Your task to perform on an android device: turn on data saver in the chrome app Image 0: 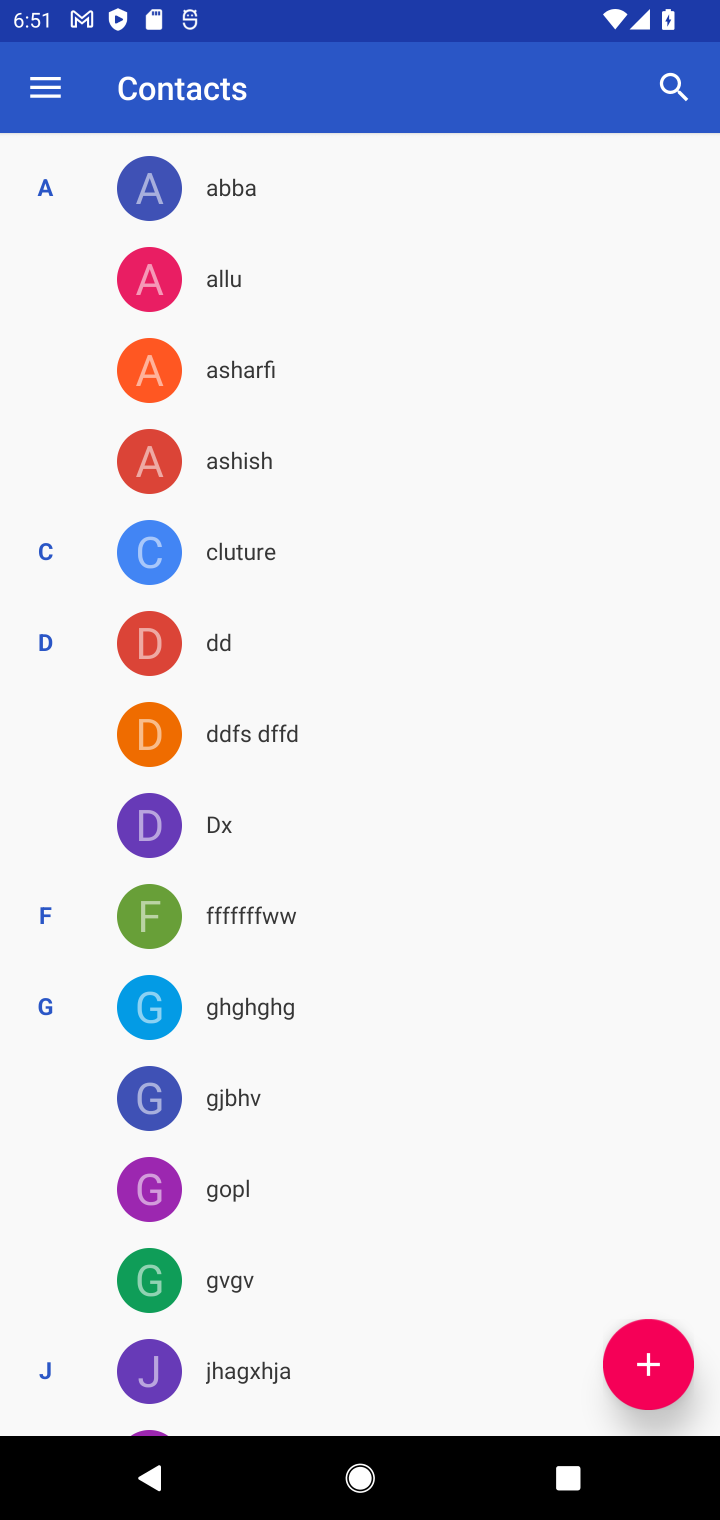
Step 0: press home button
Your task to perform on an android device: turn on data saver in the chrome app Image 1: 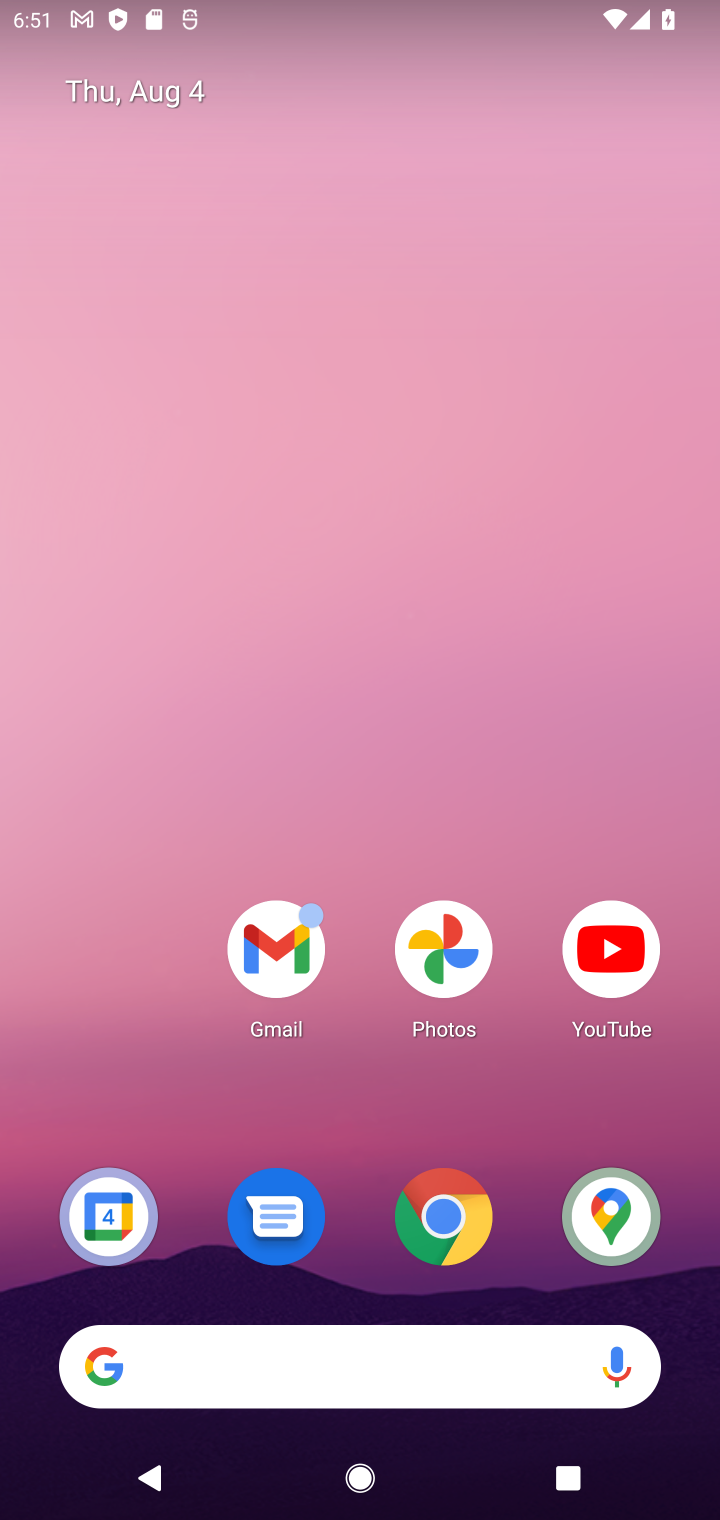
Step 1: drag from (339, 1309) to (374, 55)
Your task to perform on an android device: turn on data saver in the chrome app Image 2: 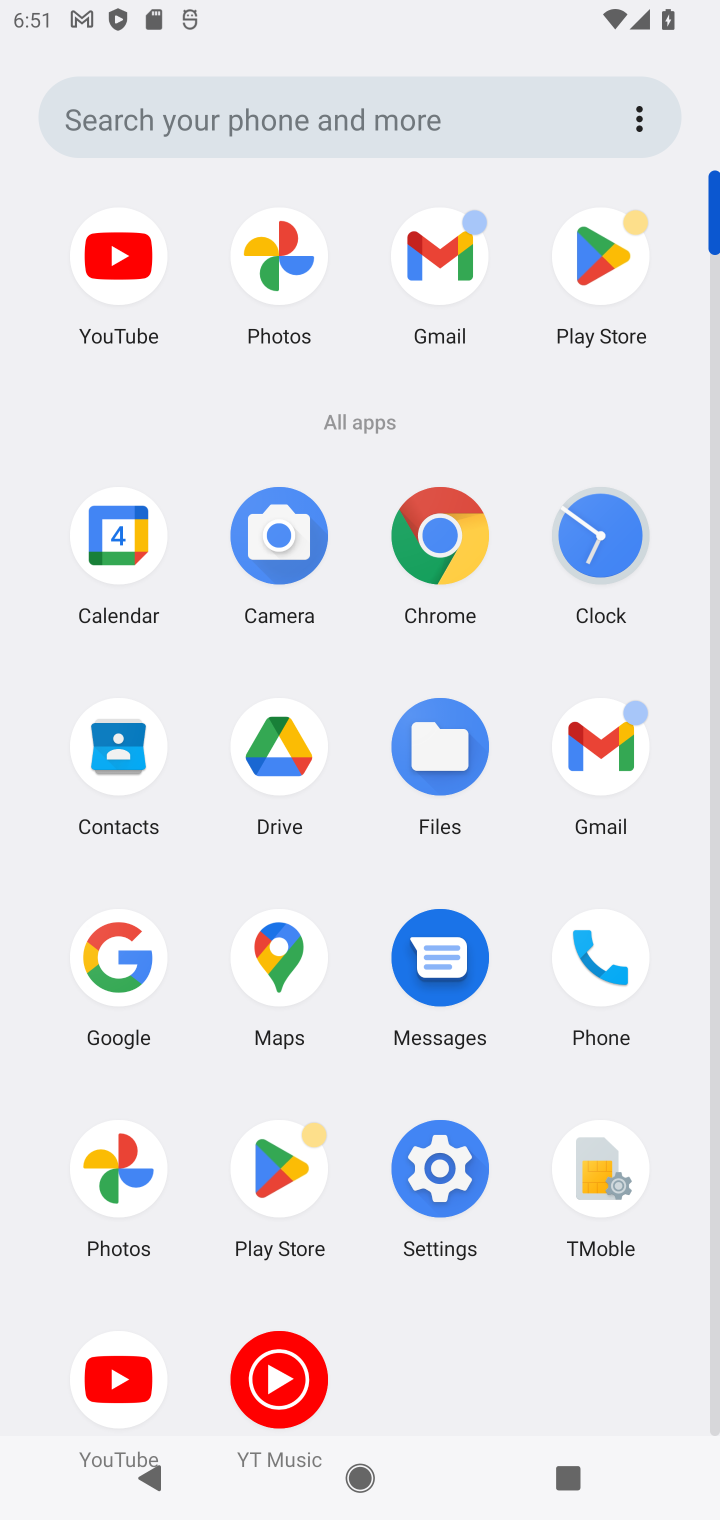
Step 2: click (440, 529)
Your task to perform on an android device: turn on data saver in the chrome app Image 3: 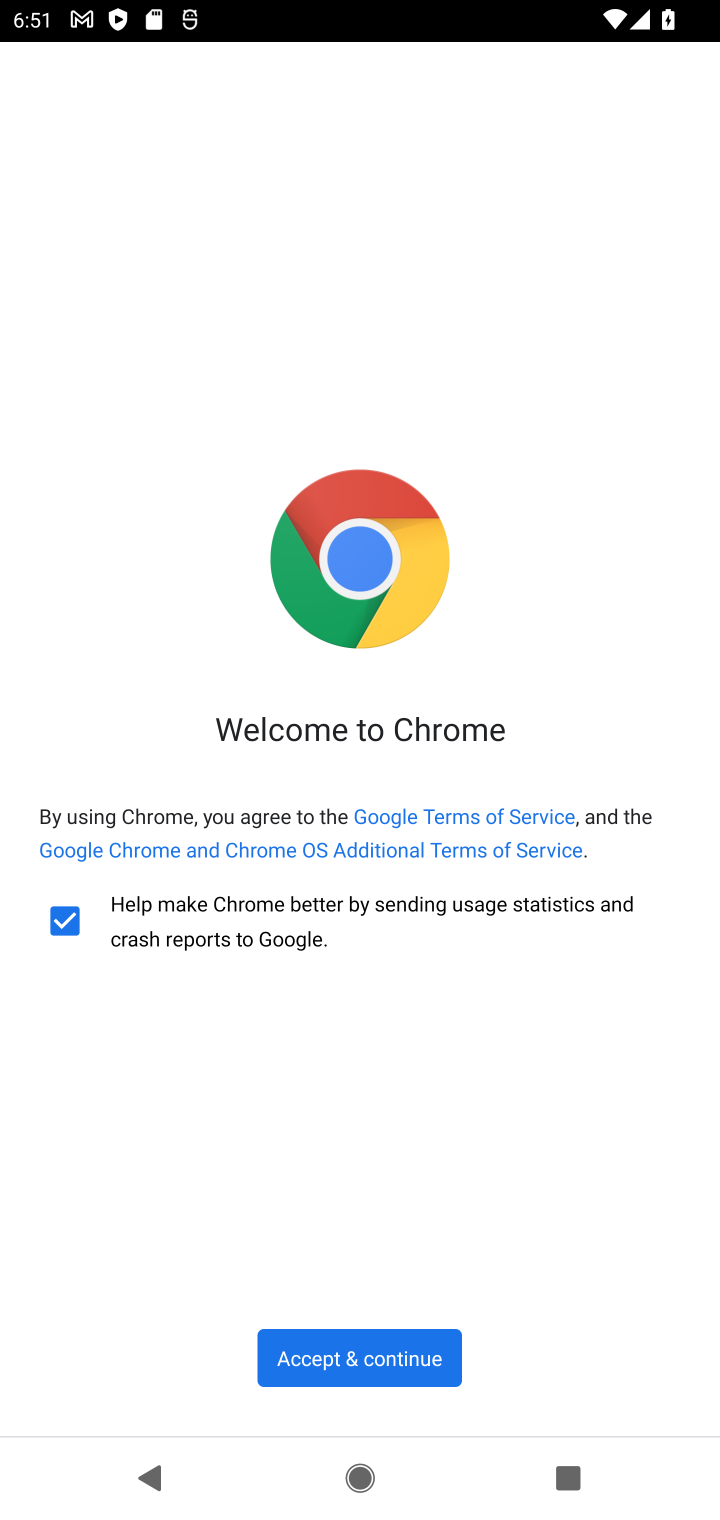
Step 3: click (355, 1363)
Your task to perform on an android device: turn on data saver in the chrome app Image 4: 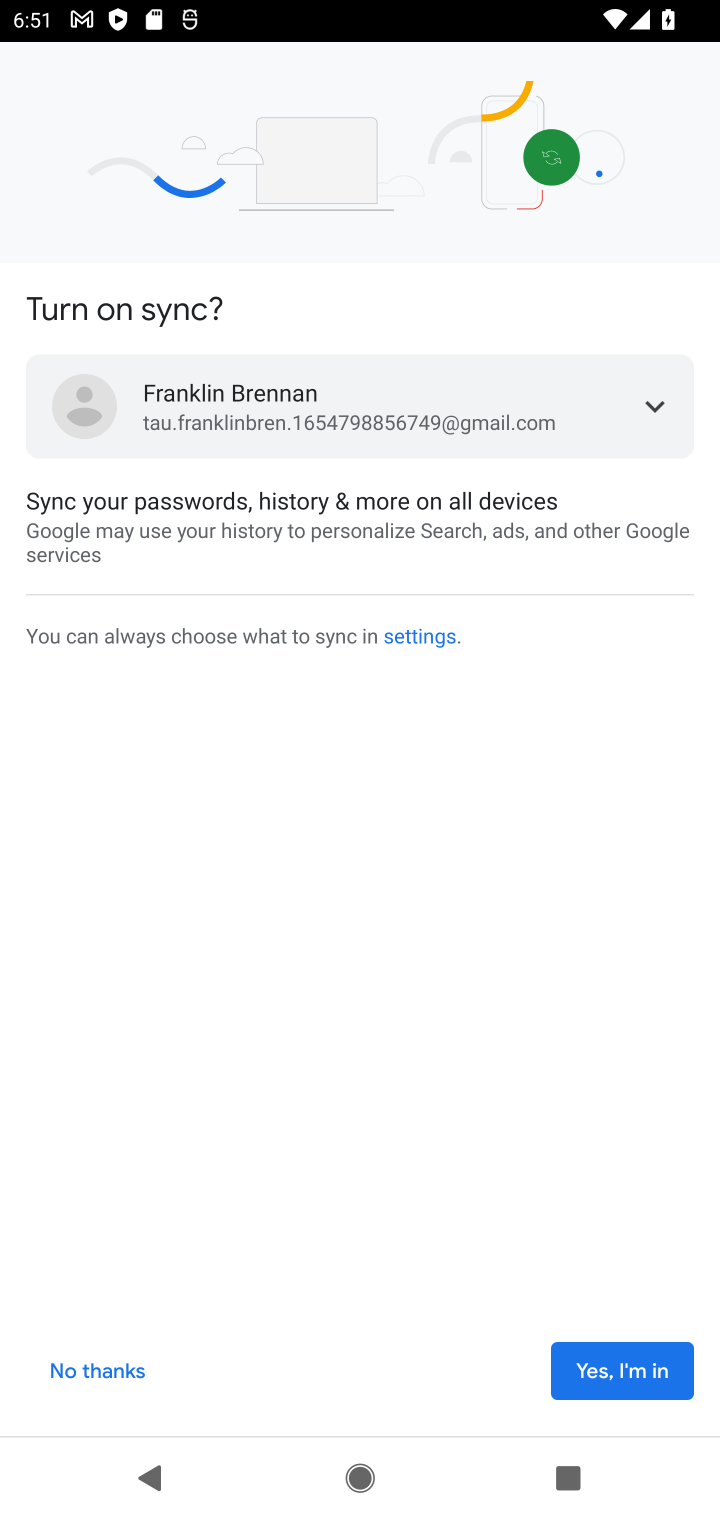
Step 4: click (644, 1381)
Your task to perform on an android device: turn on data saver in the chrome app Image 5: 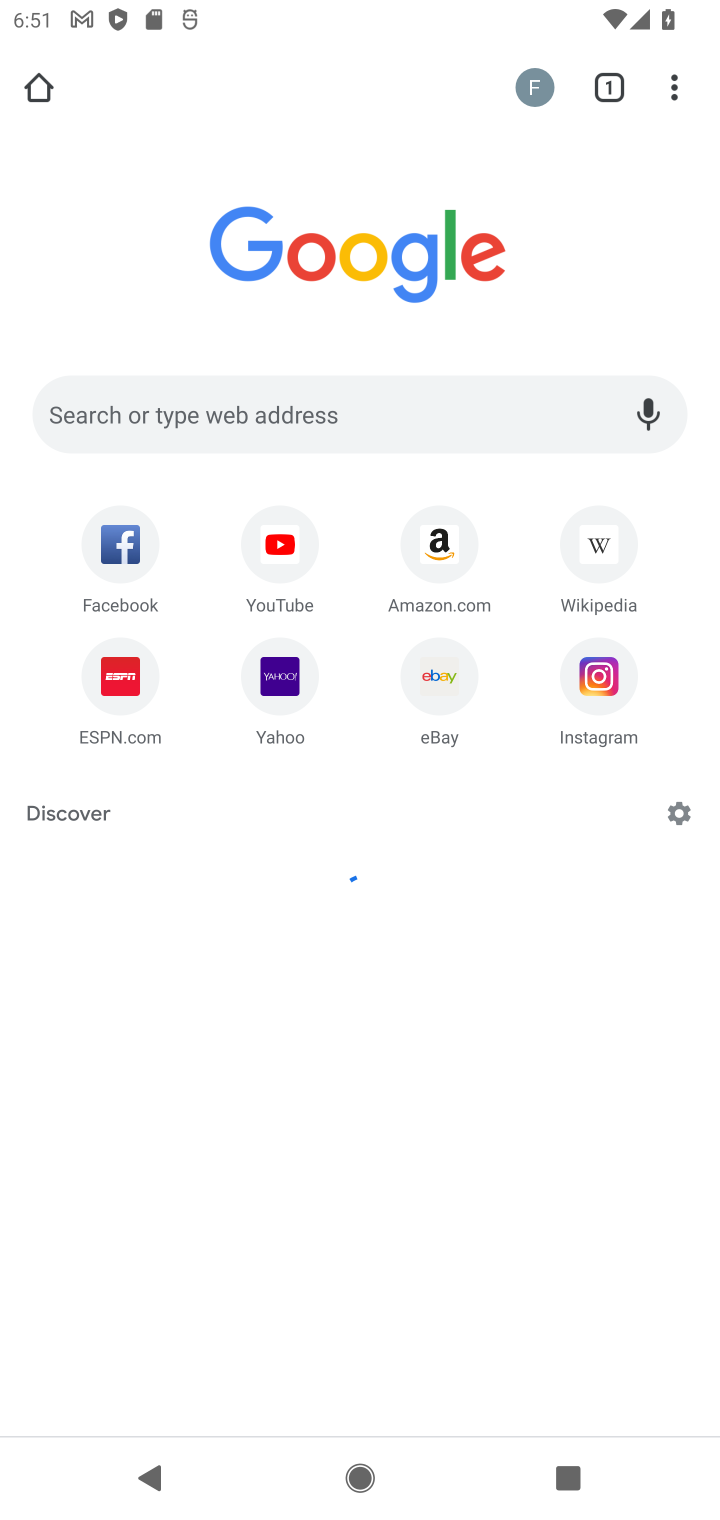
Step 5: click (672, 93)
Your task to perform on an android device: turn on data saver in the chrome app Image 6: 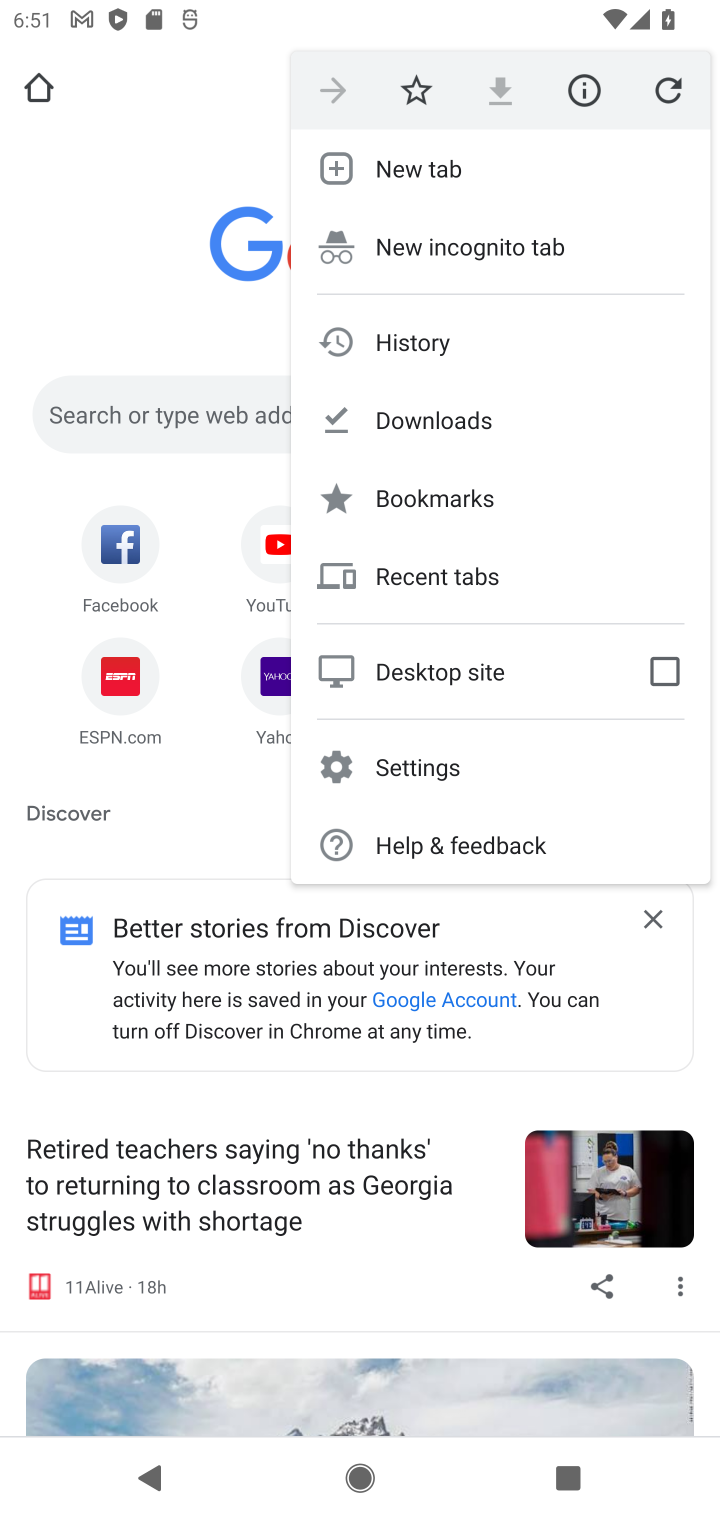
Step 6: click (402, 764)
Your task to perform on an android device: turn on data saver in the chrome app Image 7: 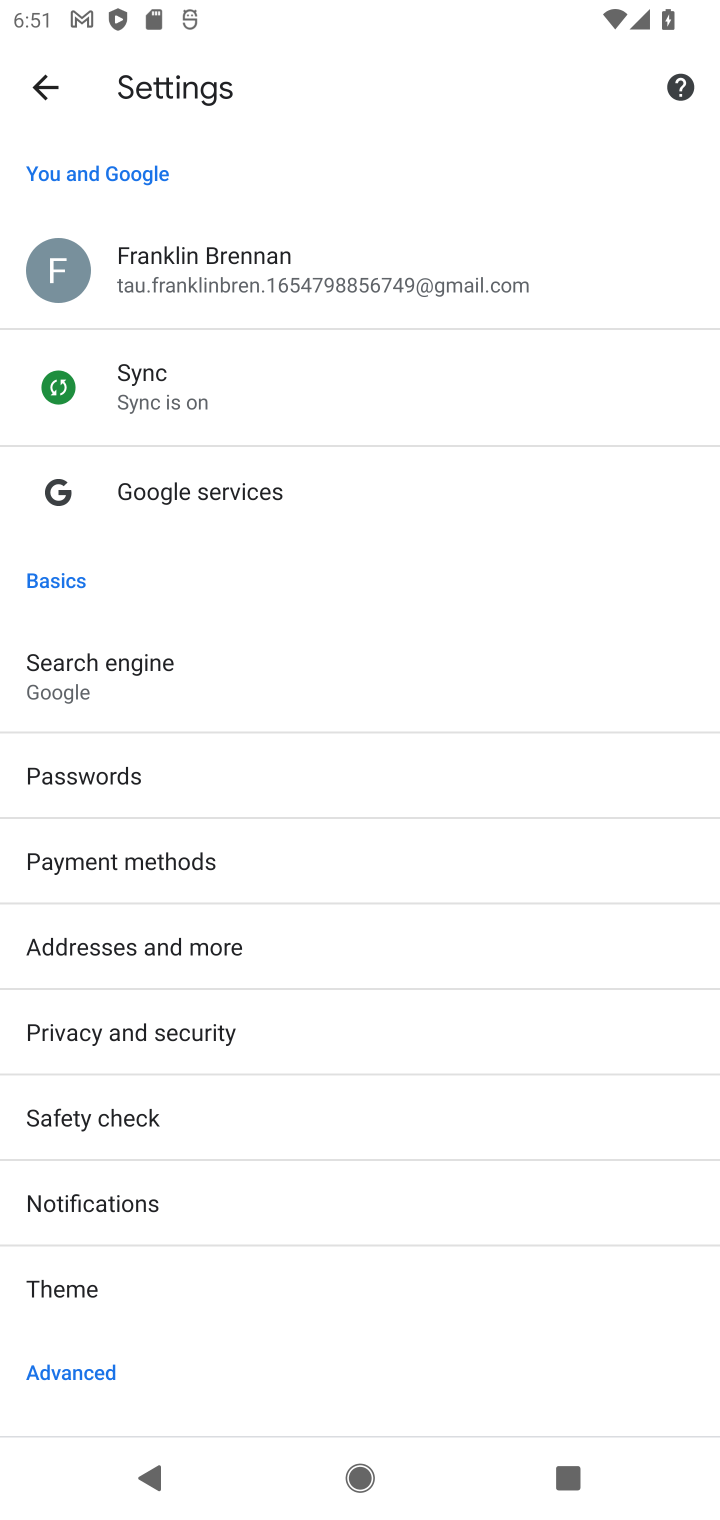
Step 7: drag from (229, 1353) to (177, 791)
Your task to perform on an android device: turn on data saver in the chrome app Image 8: 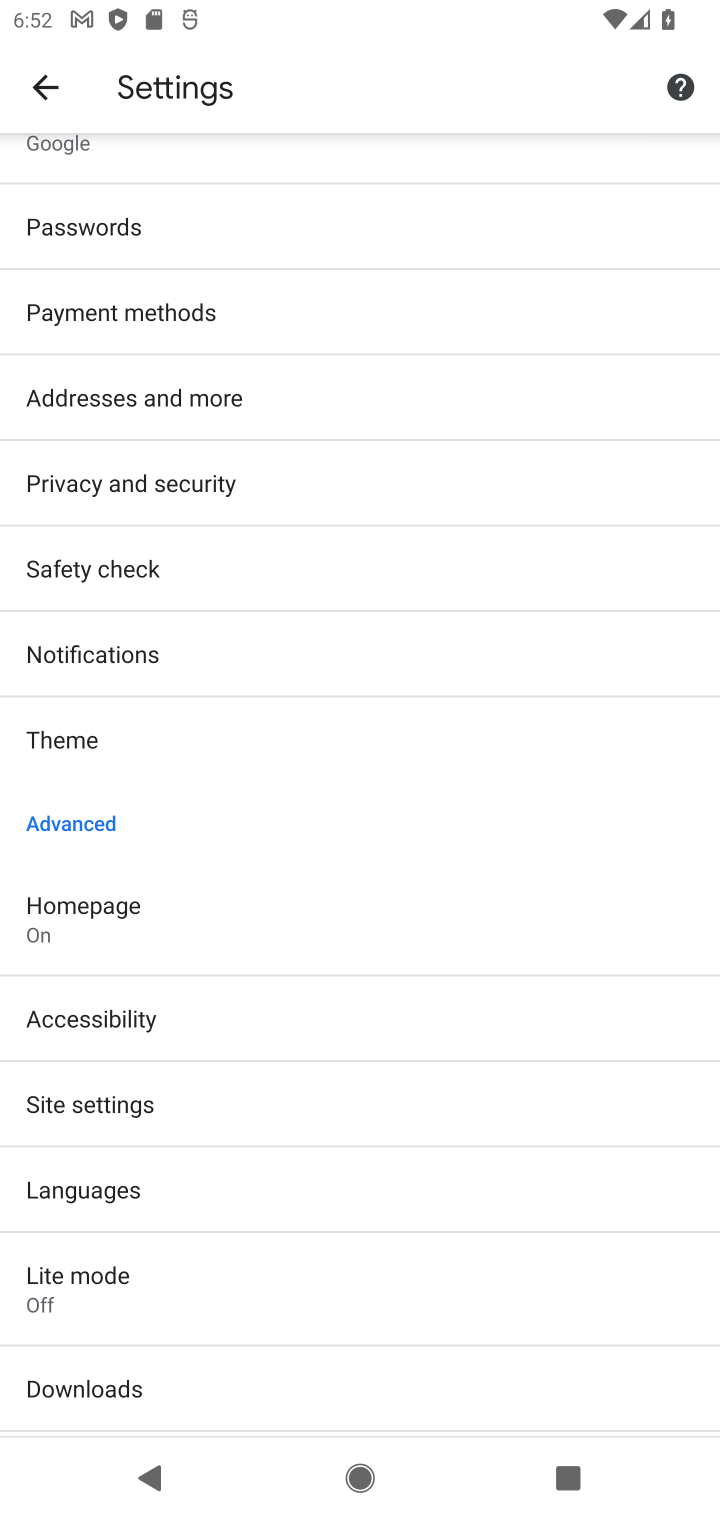
Step 8: click (103, 1272)
Your task to perform on an android device: turn on data saver in the chrome app Image 9: 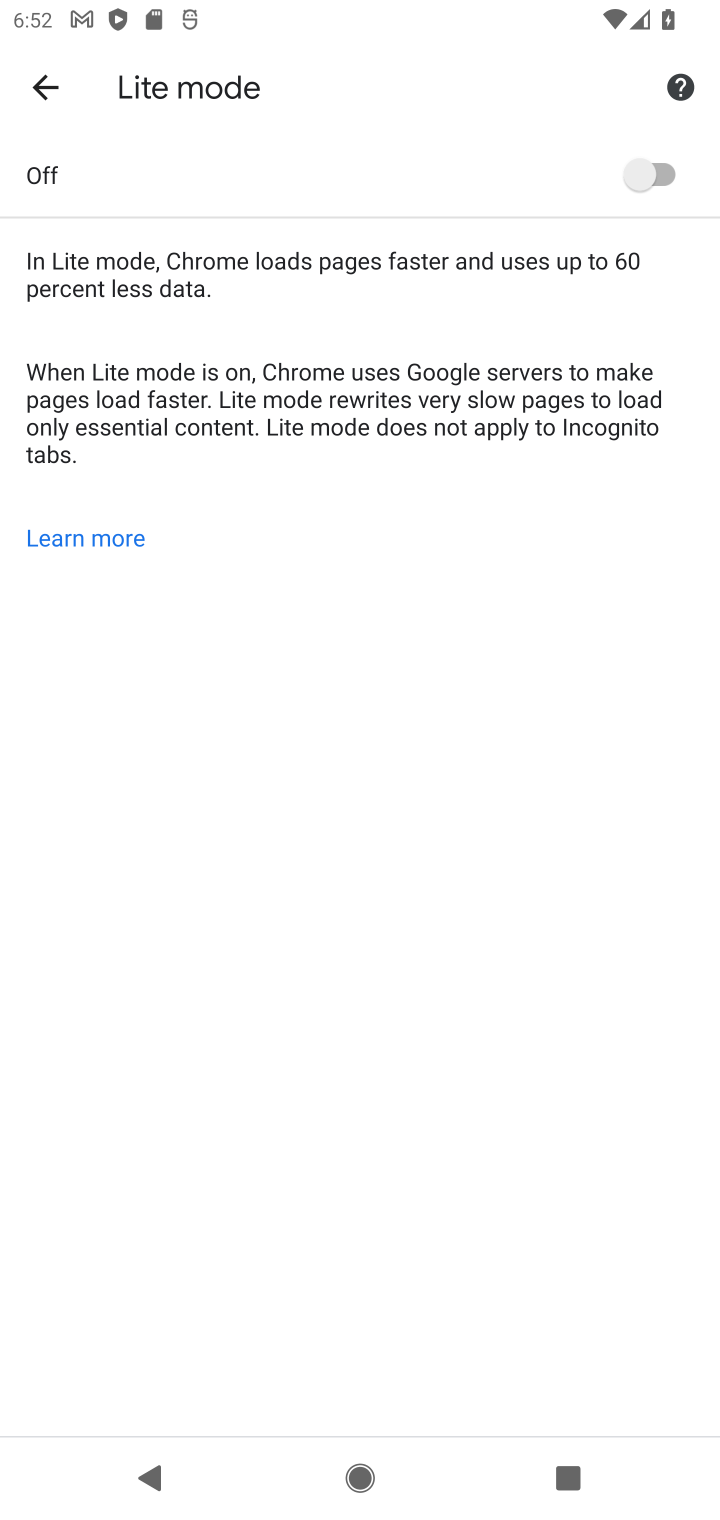
Step 9: click (670, 176)
Your task to perform on an android device: turn on data saver in the chrome app Image 10: 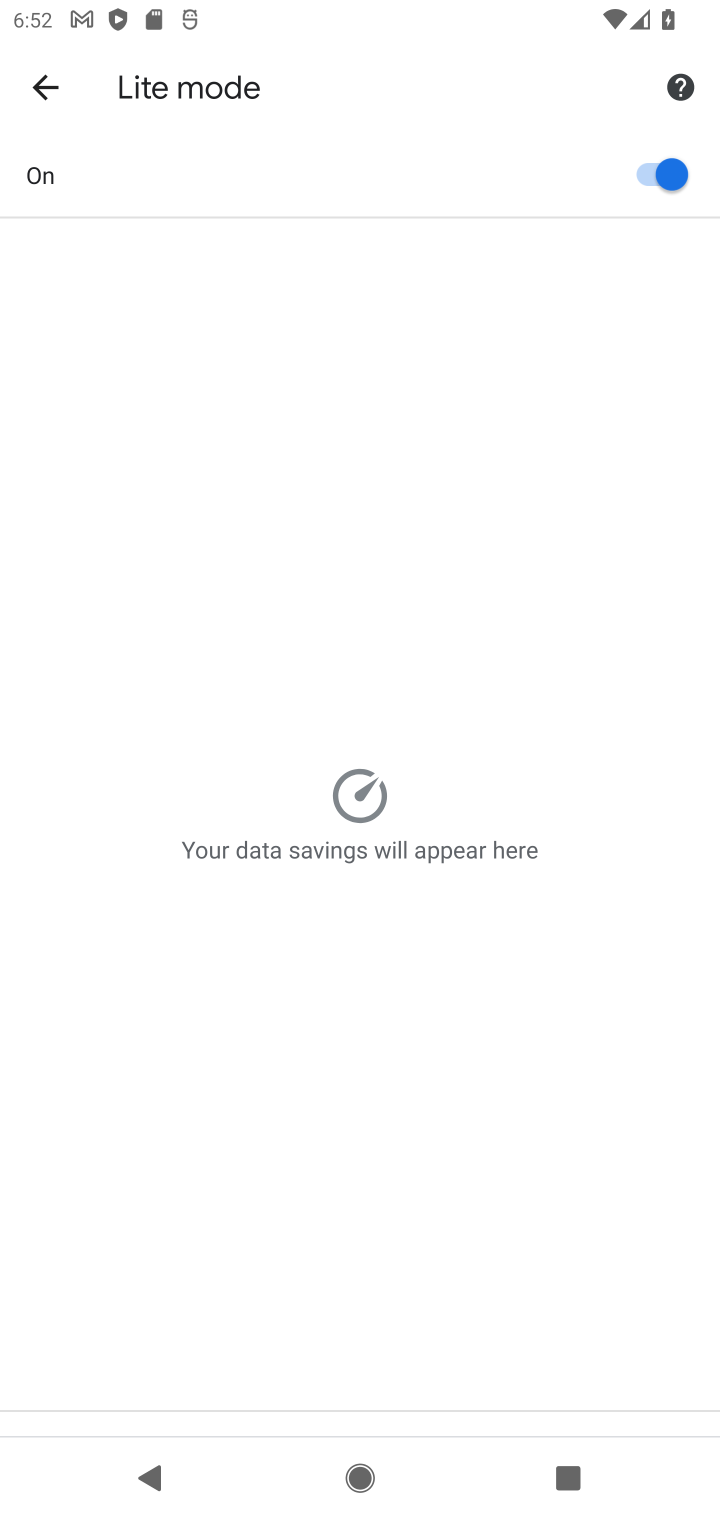
Step 10: task complete